Your task to perform on an android device: allow cookies in the chrome app Image 0: 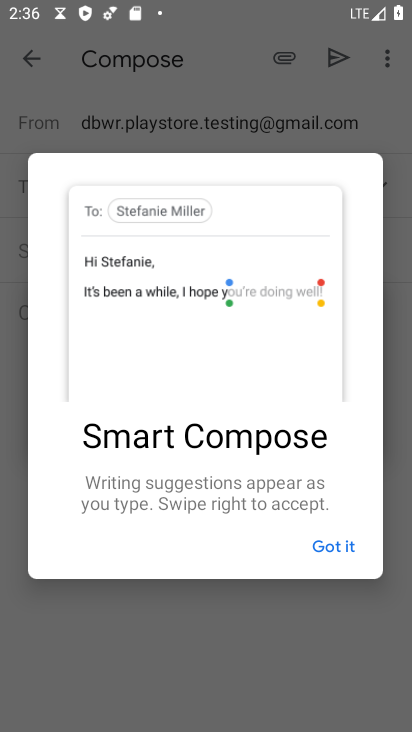
Step 0: press home button
Your task to perform on an android device: allow cookies in the chrome app Image 1: 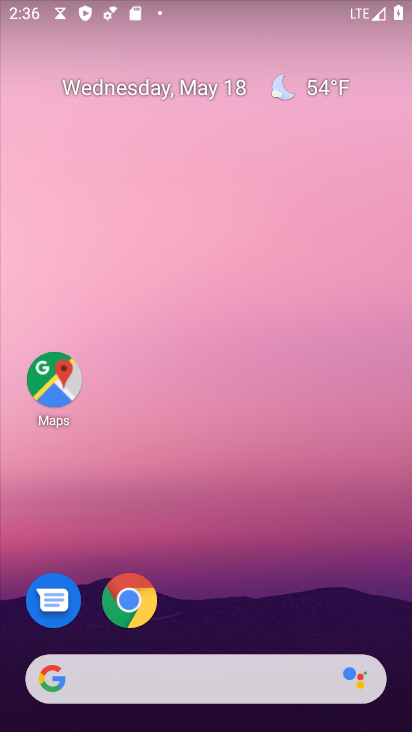
Step 1: click (127, 609)
Your task to perform on an android device: allow cookies in the chrome app Image 2: 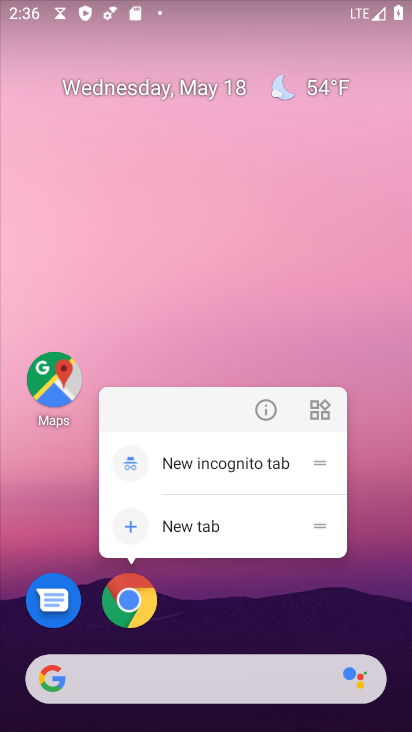
Step 2: click (137, 617)
Your task to perform on an android device: allow cookies in the chrome app Image 3: 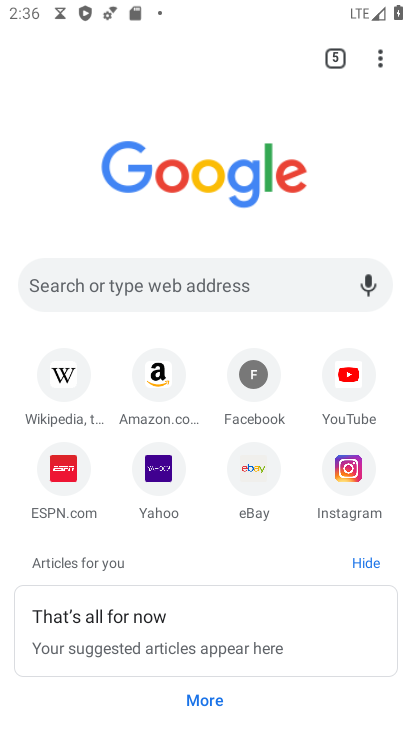
Step 3: drag from (377, 56) to (243, 487)
Your task to perform on an android device: allow cookies in the chrome app Image 4: 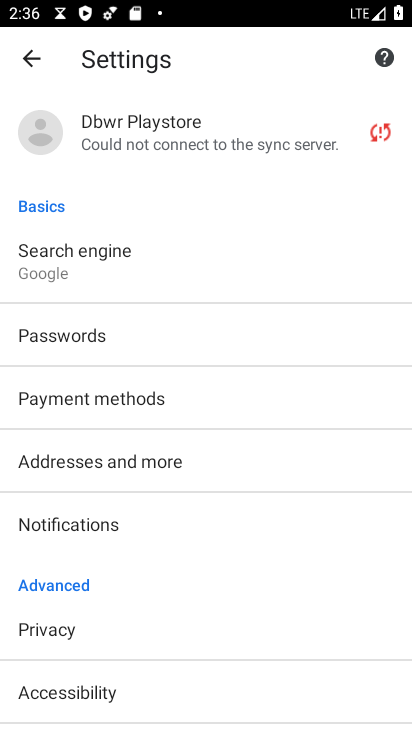
Step 4: drag from (130, 630) to (287, 182)
Your task to perform on an android device: allow cookies in the chrome app Image 5: 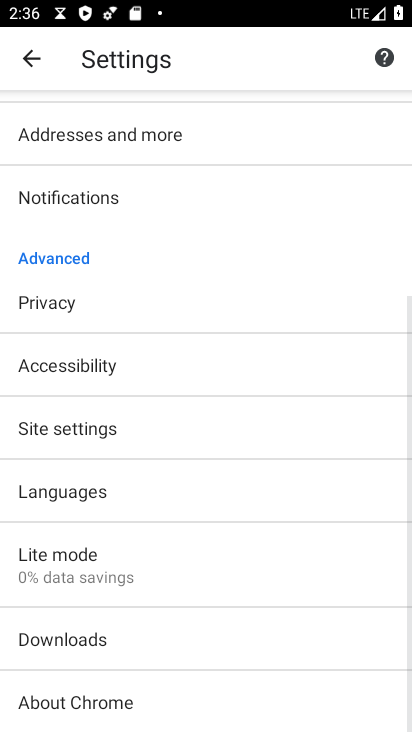
Step 5: click (62, 435)
Your task to perform on an android device: allow cookies in the chrome app Image 6: 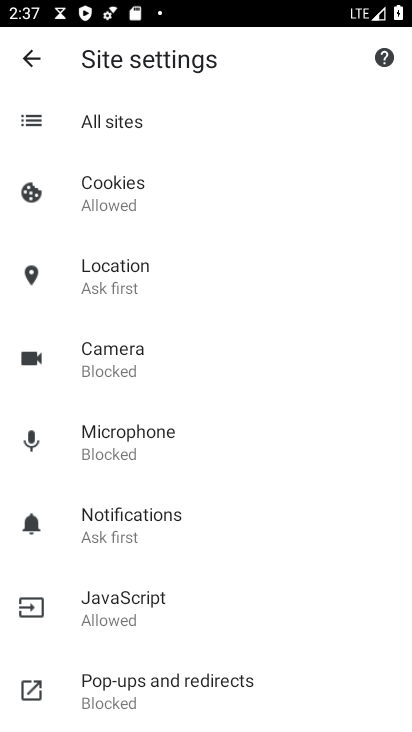
Step 6: click (122, 193)
Your task to perform on an android device: allow cookies in the chrome app Image 7: 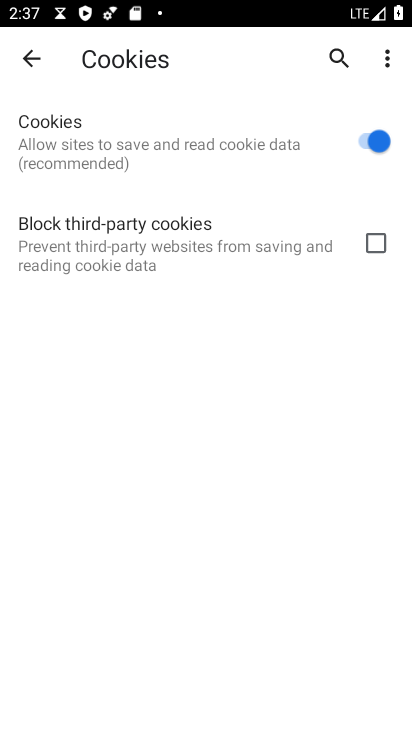
Step 7: task complete